Your task to perform on an android device: toggle improve location accuracy Image 0: 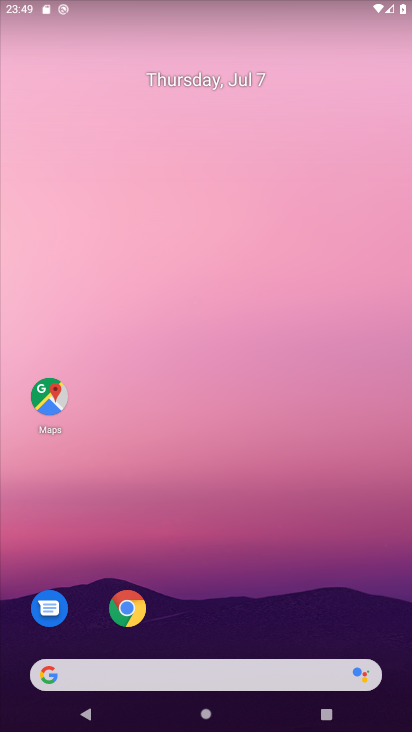
Step 0: drag from (240, 635) to (237, 171)
Your task to perform on an android device: toggle improve location accuracy Image 1: 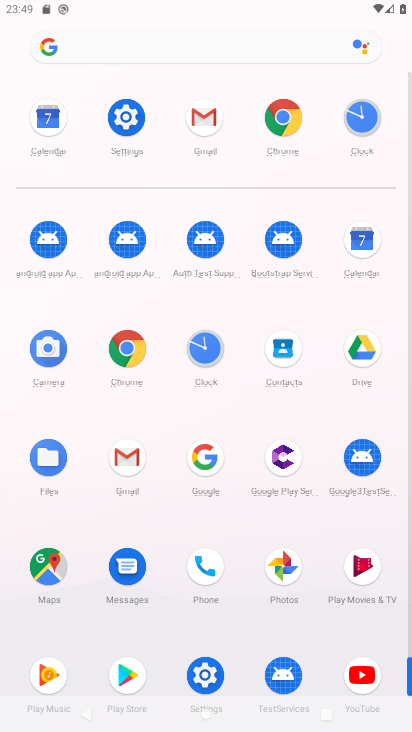
Step 1: click (132, 97)
Your task to perform on an android device: toggle improve location accuracy Image 2: 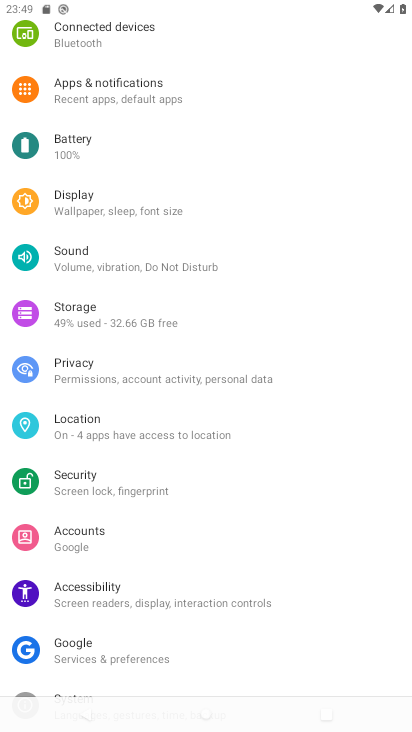
Step 2: click (102, 413)
Your task to perform on an android device: toggle improve location accuracy Image 3: 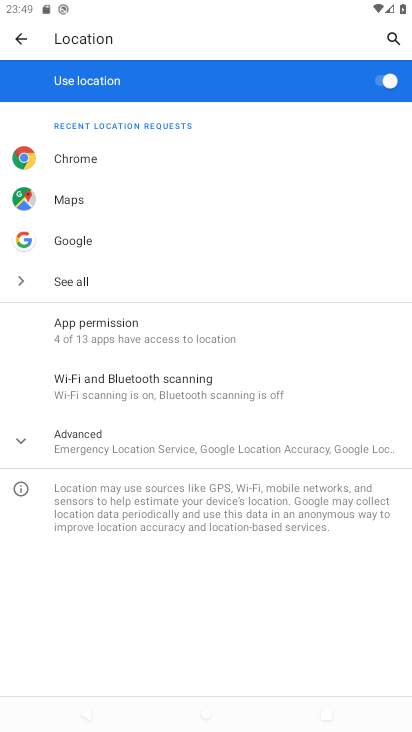
Step 3: click (200, 441)
Your task to perform on an android device: toggle improve location accuracy Image 4: 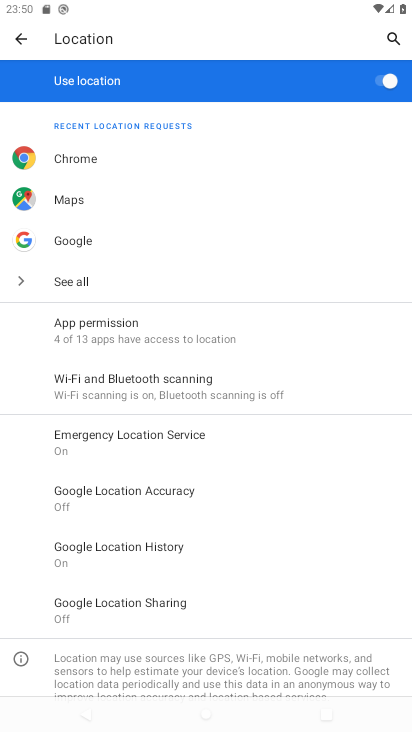
Step 4: task complete